Your task to perform on an android device: Open Chrome and go to the settings page Image 0: 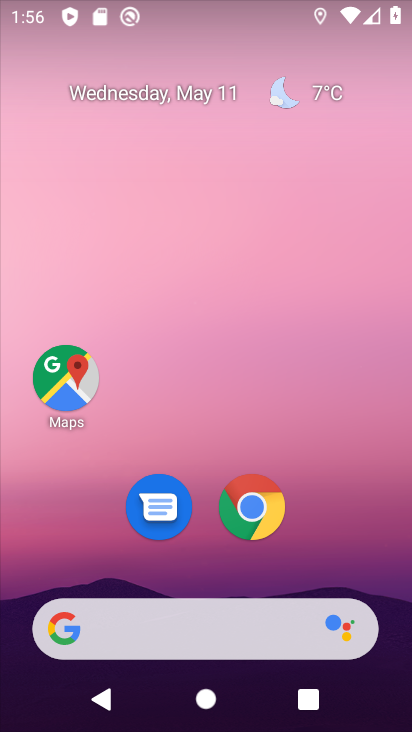
Step 0: click (244, 15)
Your task to perform on an android device: Open Chrome and go to the settings page Image 1: 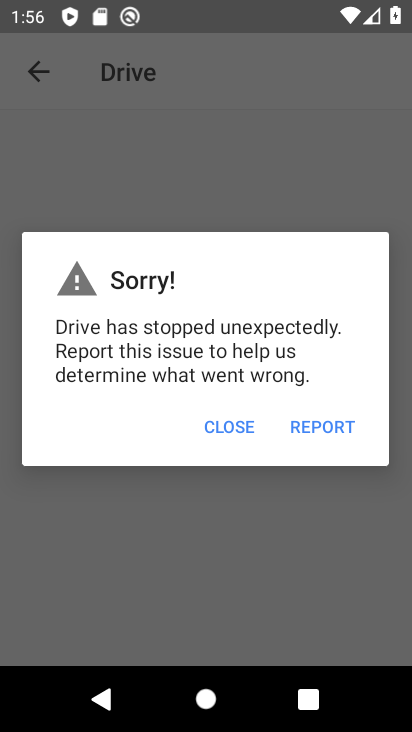
Step 1: press back button
Your task to perform on an android device: Open Chrome and go to the settings page Image 2: 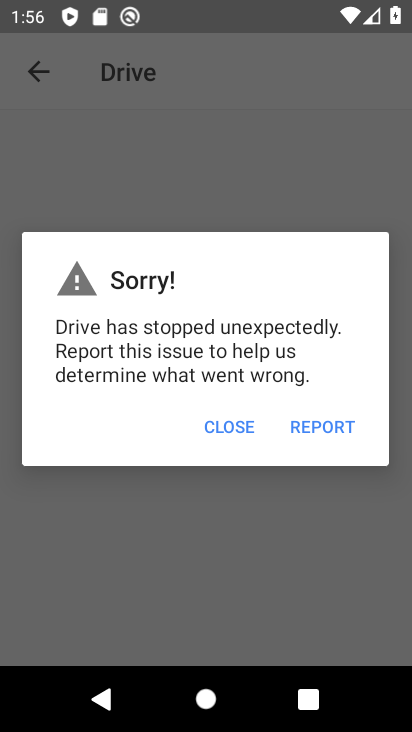
Step 2: press back button
Your task to perform on an android device: Open Chrome and go to the settings page Image 3: 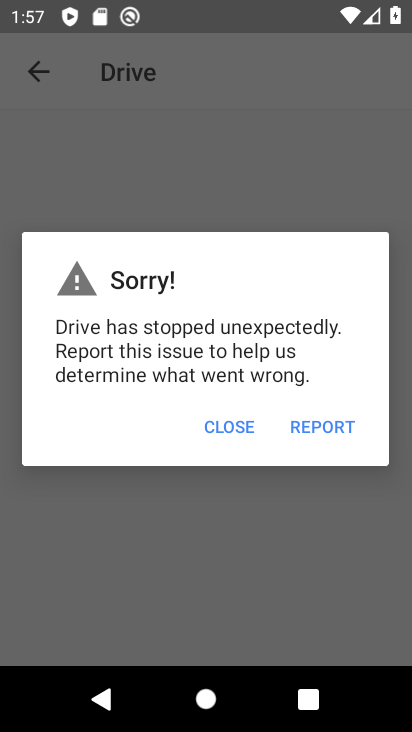
Step 3: press back button
Your task to perform on an android device: Open Chrome and go to the settings page Image 4: 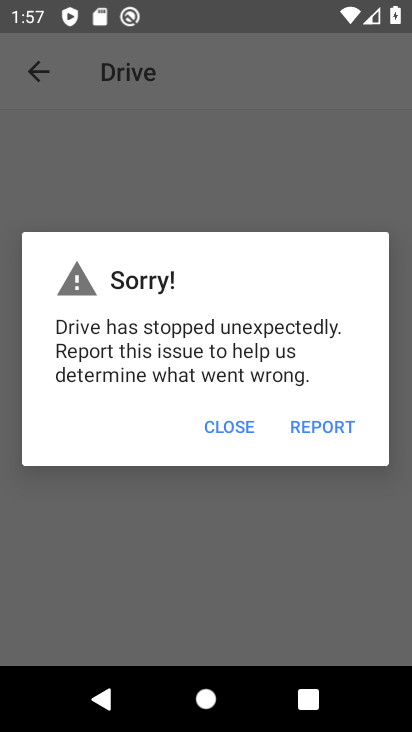
Step 4: press home button
Your task to perform on an android device: Open Chrome and go to the settings page Image 5: 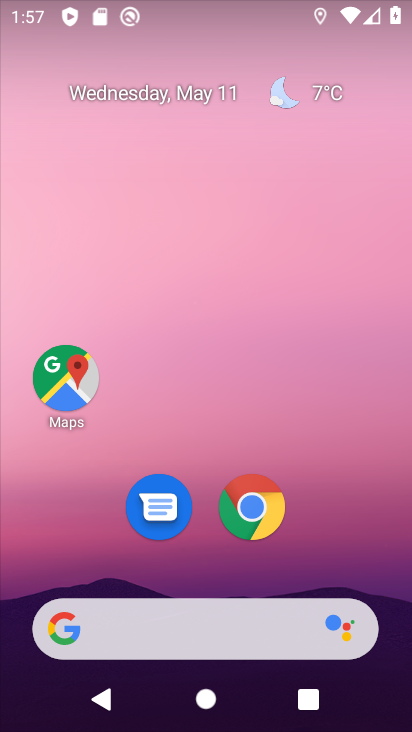
Step 5: drag from (350, 550) to (289, 39)
Your task to perform on an android device: Open Chrome and go to the settings page Image 6: 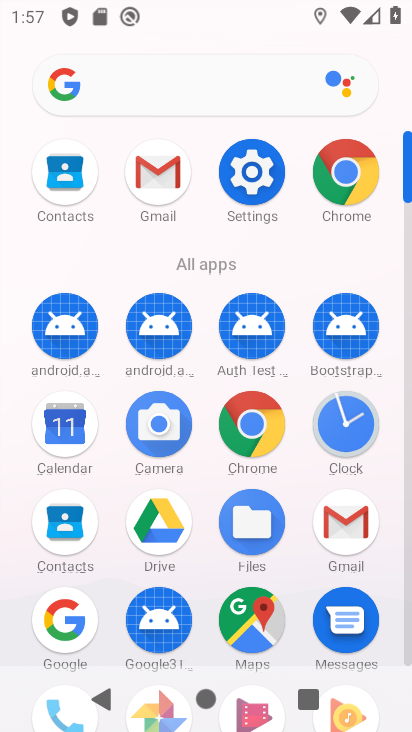
Step 6: drag from (11, 610) to (23, 336)
Your task to perform on an android device: Open Chrome and go to the settings page Image 7: 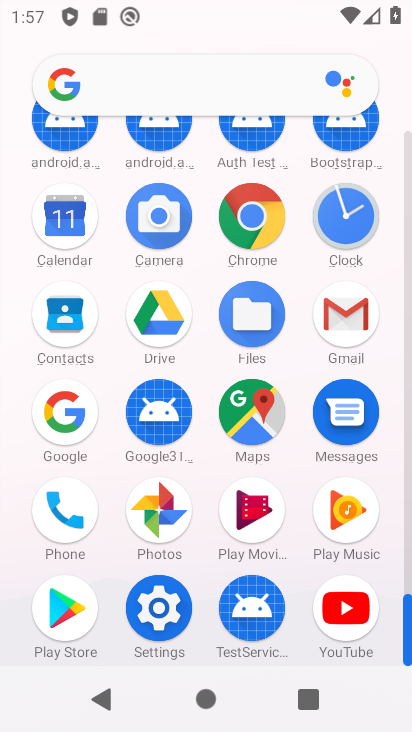
Step 7: click (244, 210)
Your task to perform on an android device: Open Chrome and go to the settings page Image 8: 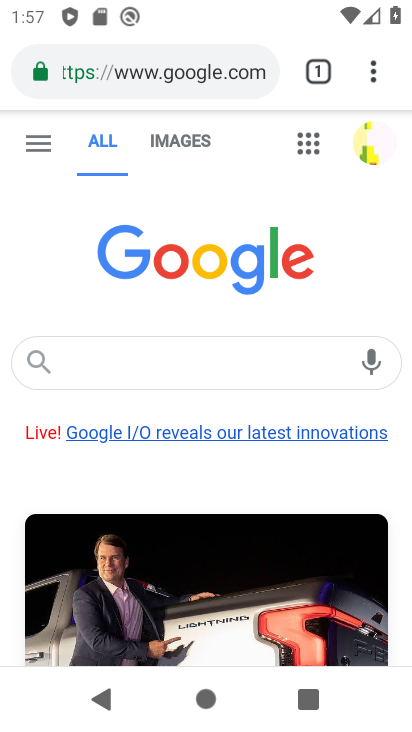
Step 8: task complete